Your task to perform on an android device: Open my contact list Image 0: 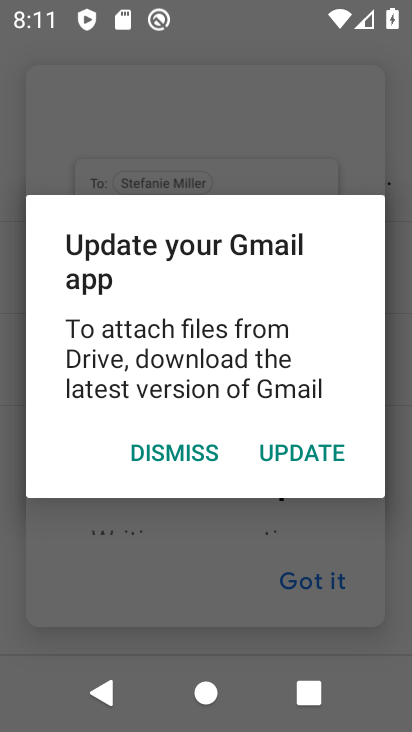
Step 0: press home button
Your task to perform on an android device: Open my contact list Image 1: 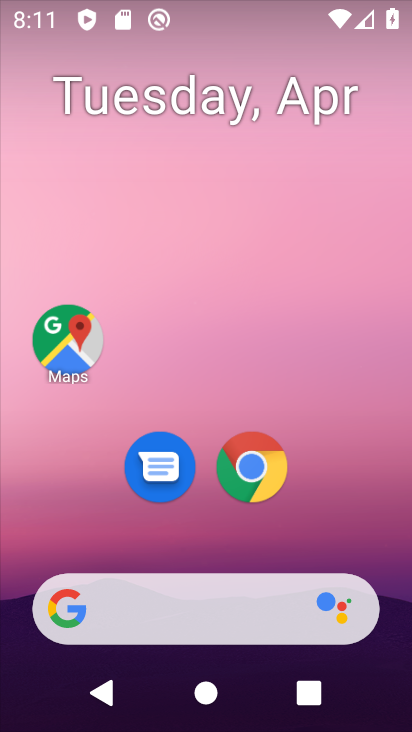
Step 1: drag from (392, 498) to (401, 23)
Your task to perform on an android device: Open my contact list Image 2: 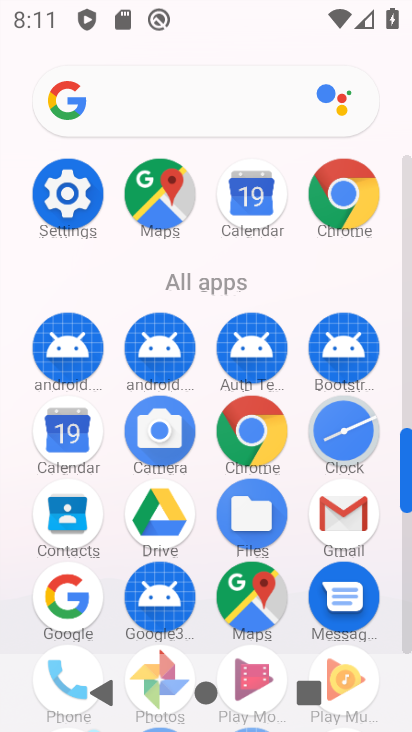
Step 2: click (69, 522)
Your task to perform on an android device: Open my contact list Image 3: 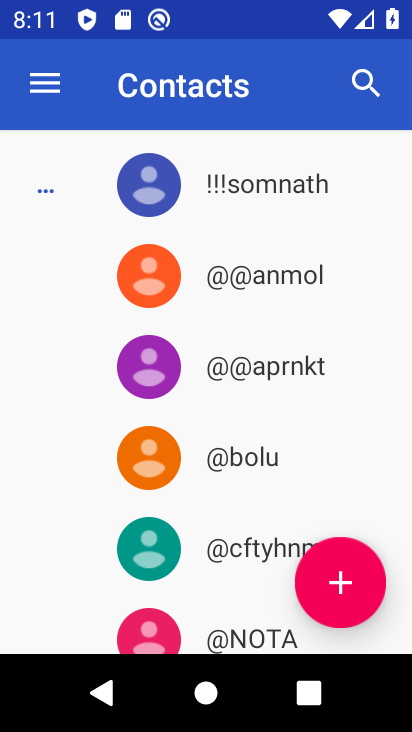
Step 3: click (213, 187)
Your task to perform on an android device: Open my contact list Image 4: 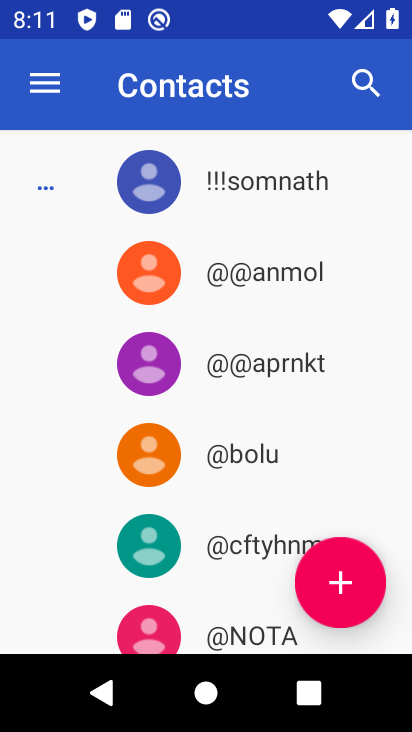
Step 4: task complete